Your task to perform on an android device: Set the phone to "Do not disturb". Image 0: 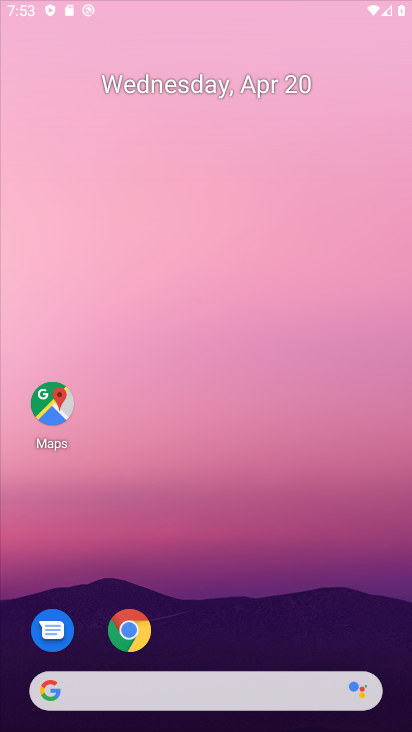
Step 0: click (299, 115)
Your task to perform on an android device: Set the phone to "Do not disturb". Image 1: 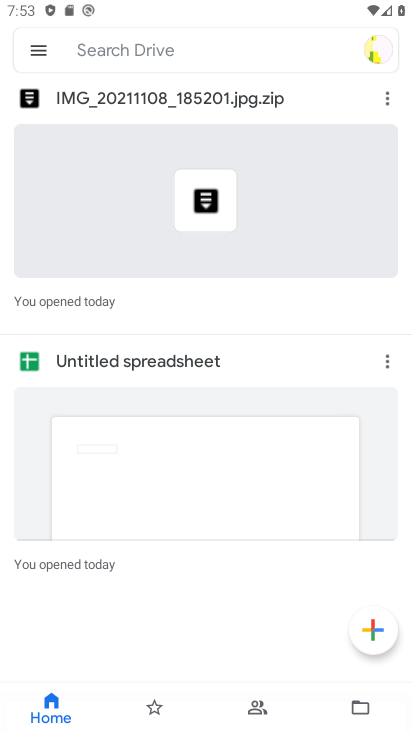
Step 1: press home button
Your task to perform on an android device: Set the phone to "Do not disturb". Image 2: 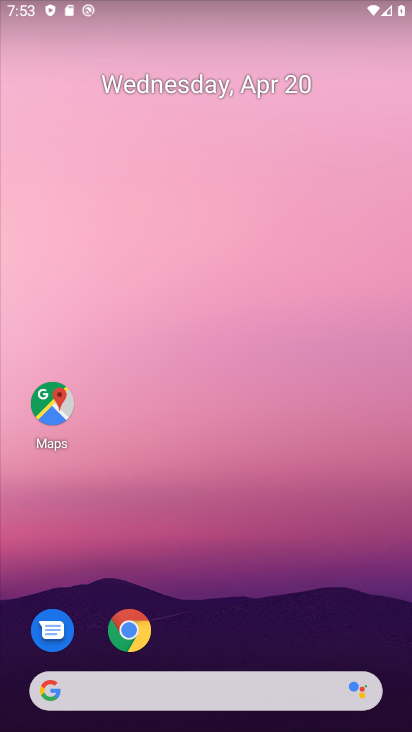
Step 2: drag from (260, 594) to (260, 361)
Your task to perform on an android device: Set the phone to "Do not disturb". Image 3: 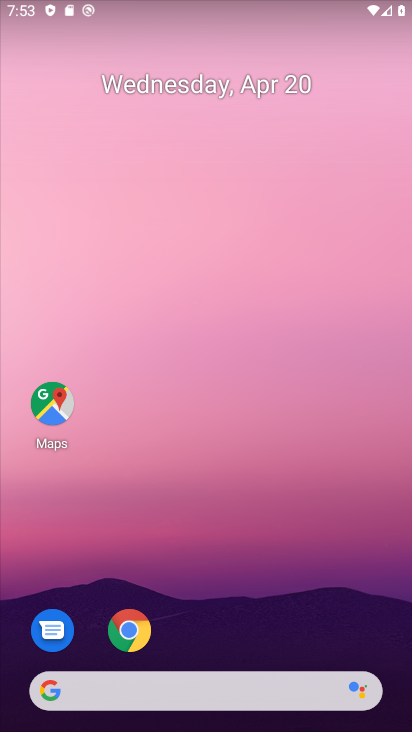
Step 3: drag from (256, 315) to (272, 131)
Your task to perform on an android device: Set the phone to "Do not disturb". Image 4: 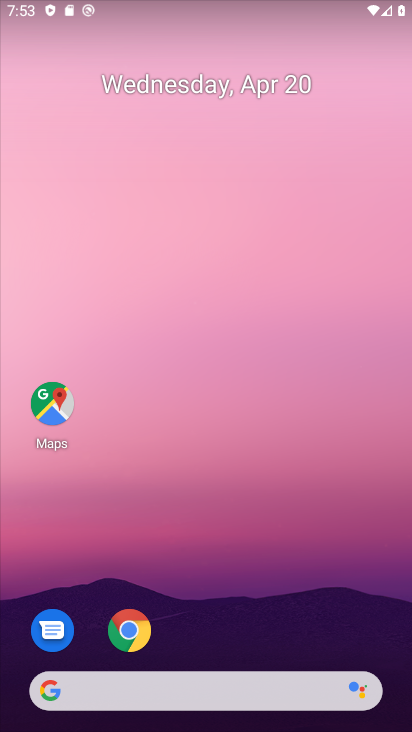
Step 4: drag from (254, 623) to (299, 119)
Your task to perform on an android device: Set the phone to "Do not disturb". Image 5: 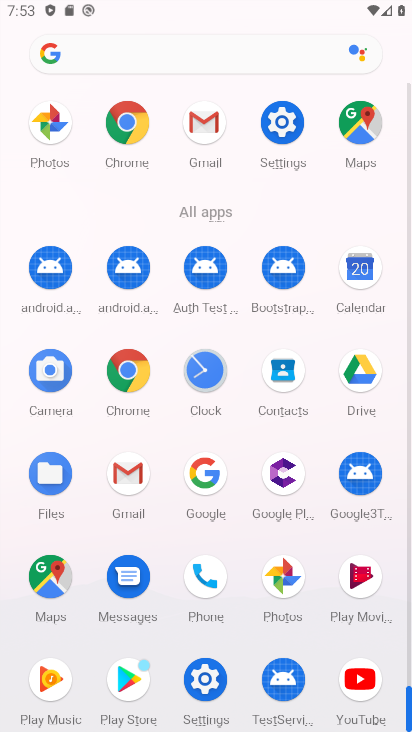
Step 5: drag from (258, 0) to (347, 407)
Your task to perform on an android device: Set the phone to "Do not disturb". Image 6: 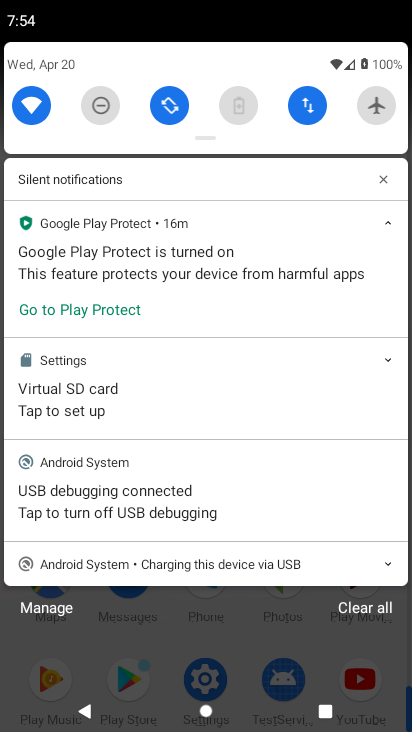
Step 6: drag from (204, 138) to (256, 332)
Your task to perform on an android device: Set the phone to "Do not disturb". Image 7: 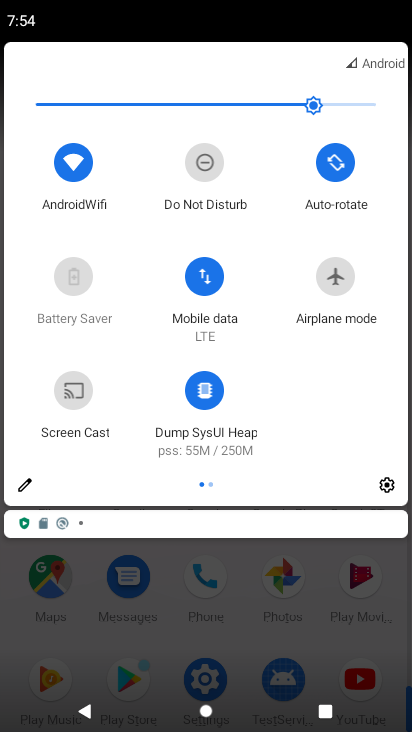
Step 7: click (207, 167)
Your task to perform on an android device: Set the phone to "Do not disturb". Image 8: 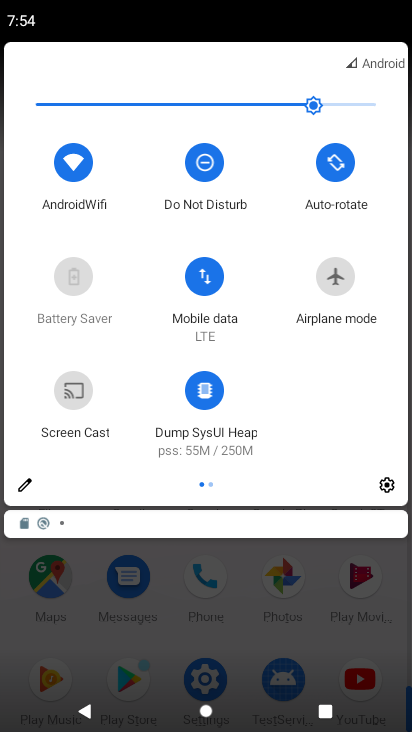
Step 8: task complete